Your task to perform on an android device: turn off smart reply in the gmail app Image 0: 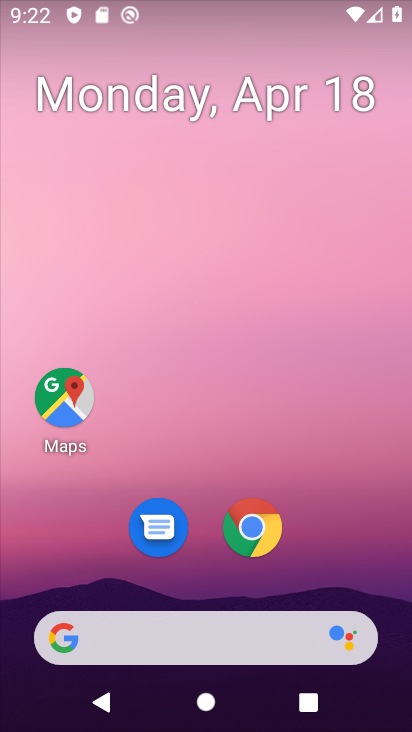
Step 0: drag from (331, 477) to (334, 13)
Your task to perform on an android device: turn off smart reply in the gmail app Image 1: 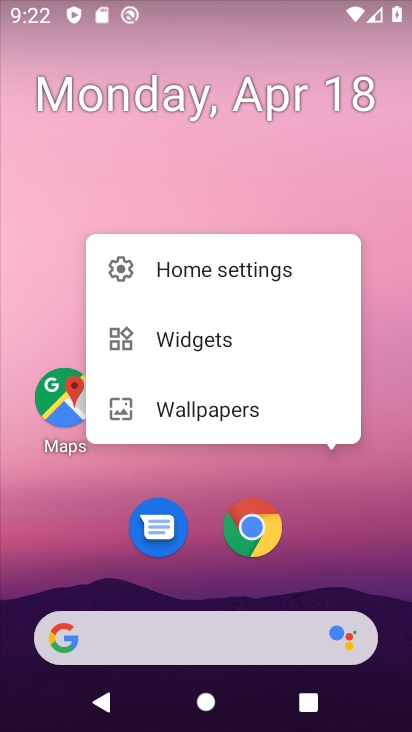
Step 1: click (336, 540)
Your task to perform on an android device: turn off smart reply in the gmail app Image 2: 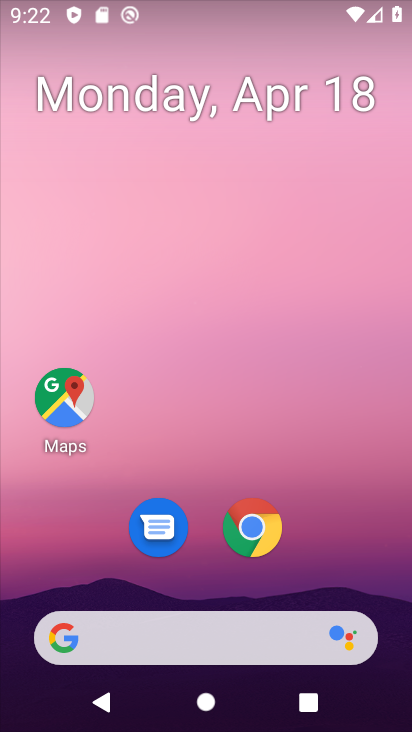
Step 2: click (336, 540)
Your task to perform on an android device: turn off smart reply in the gmail app Image 3: 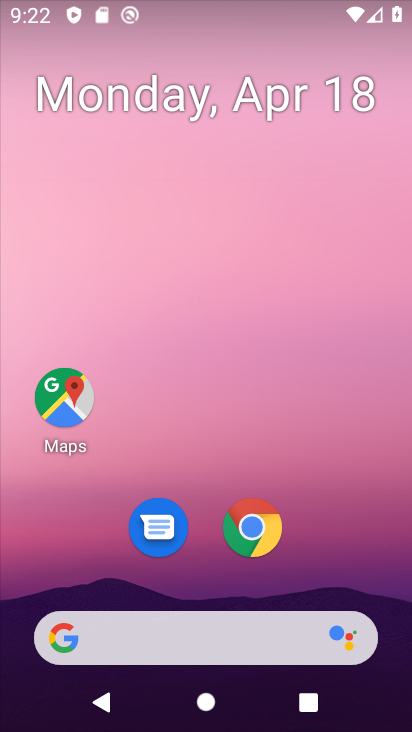
Step 3: drag from (335, 360) to (326, 134)
Your task to perform on an android device: turn off smart reply in the gmail app Image 4: 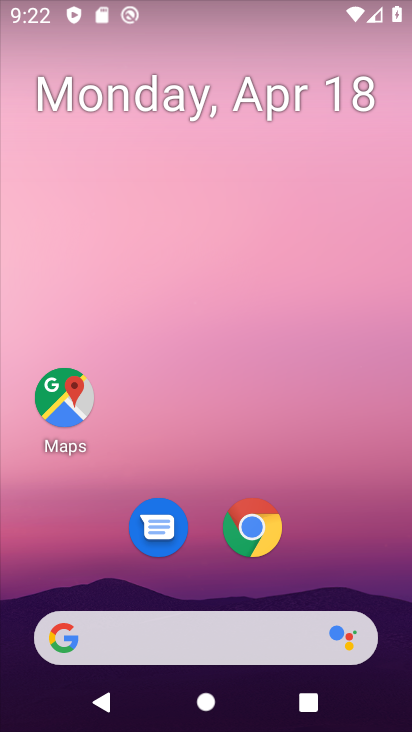
Step 4: drag from (312, 543) to (271, 30)
Your task to perform on an android device: turn off smart reply in the gmail app Image 5: 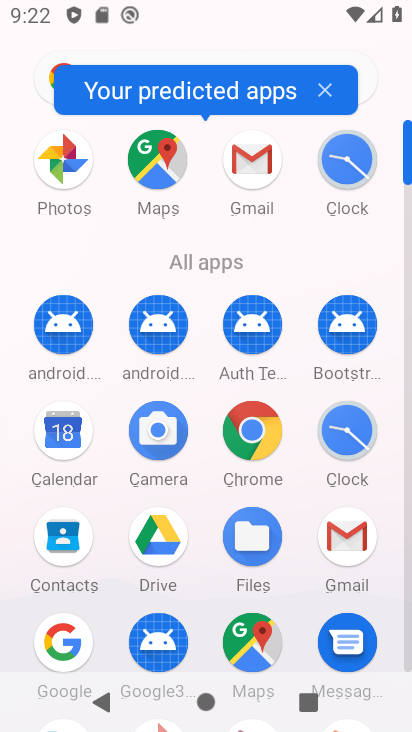
Step 5: click (255, 178)
Your task to perform on an android device: turn off smart reply in the gmail app Image 6: 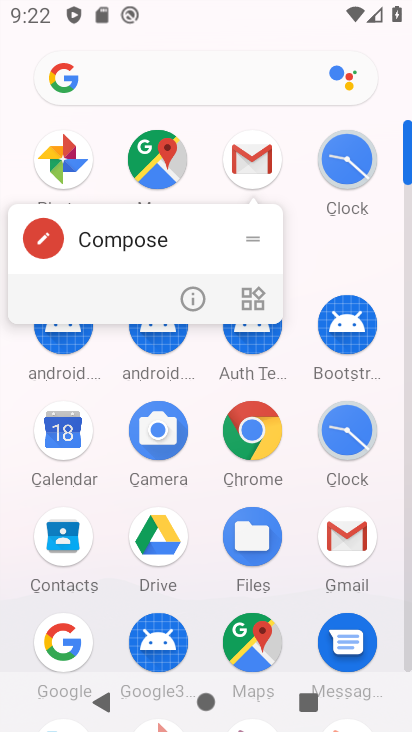
Step 6: click (255, 178)
Your task to perform on an android device: turn off smart reply in the gmail app Image 7: 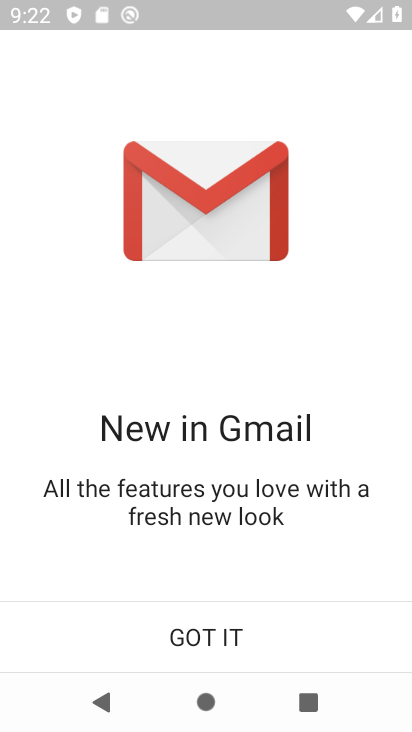
Step 7: click (209, 636)
Your task to perform on an android device: turn off smart reply in the gmail app Image 8: 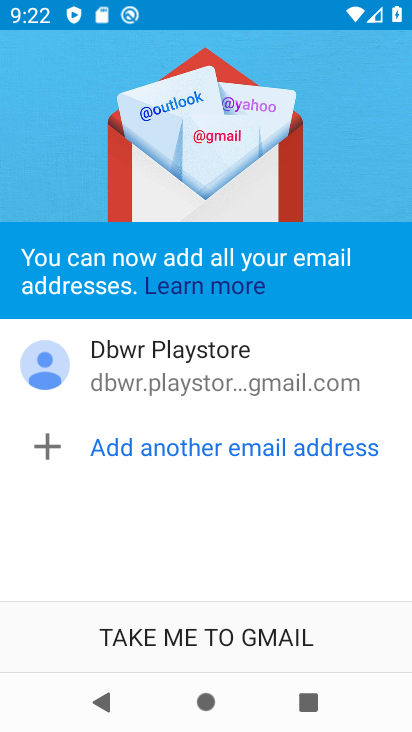
Step 8: click (209, 636)
Your task to perform on an android device: turn off smart reply in the gmail app Image 9: 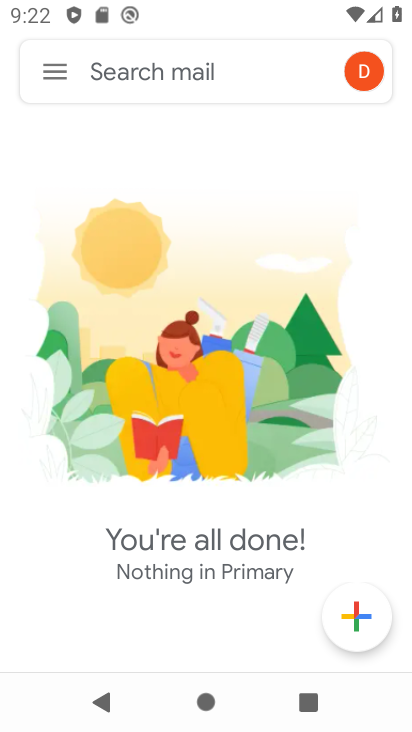
Step 9: click (55, 74)
Your task to perform on an android device: turn off smart reply in the gmail app Image 10: 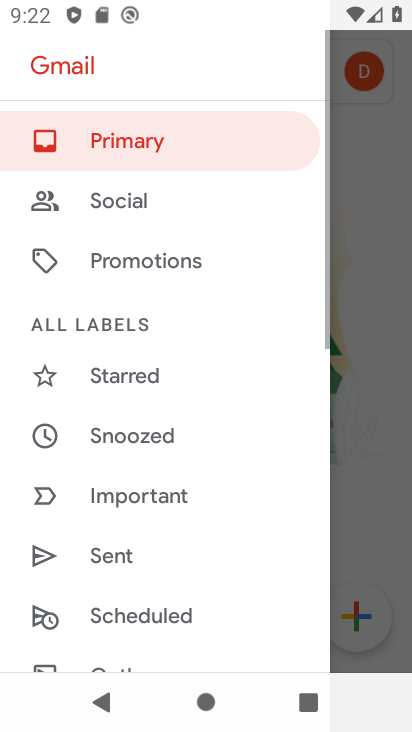
Step 10: drag from (139, 533) to (164, 256)
Your task to perform on an android device: turn off smart reply in the gmail app Image 11: 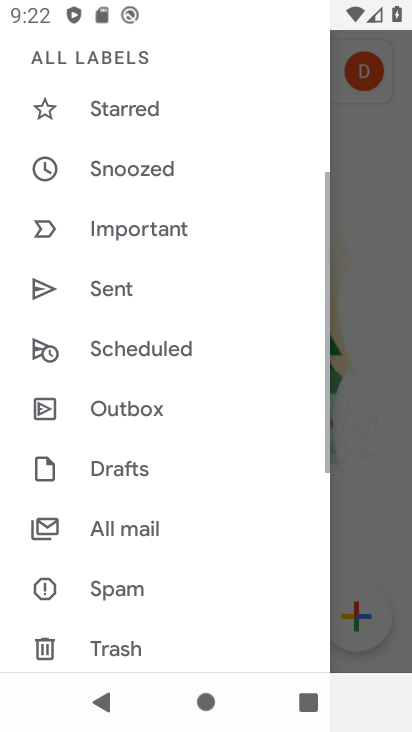
Step 11: drag from (172, 619) to (180, 266)
Your task to perform on an android device: turn off smart reply in the gmail app Image 12: 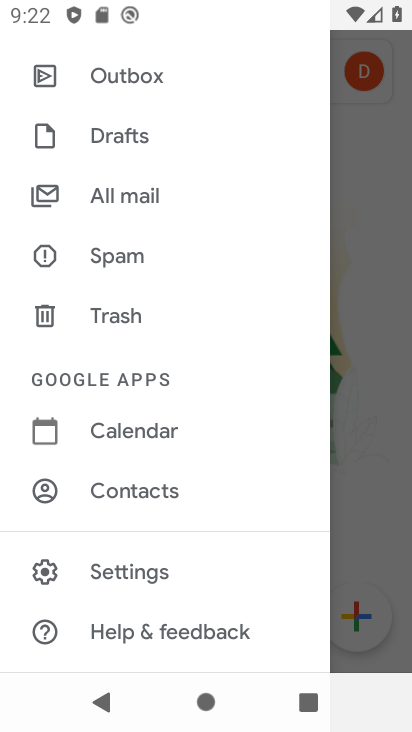
Step 12: drag from (199, 578) to (197, 327)
Your task to perform on an android device: turn off smart reply in the gmail app Image 13: 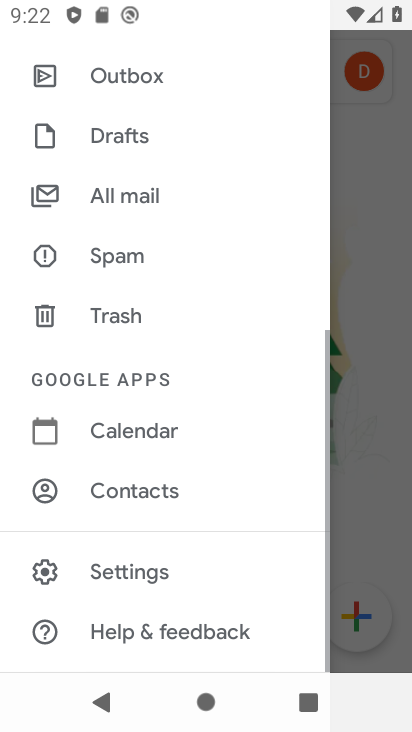
Step 13: click (191, 561)
Your task to perform on an android device: turn off smart reply in the gmail app Image 14: 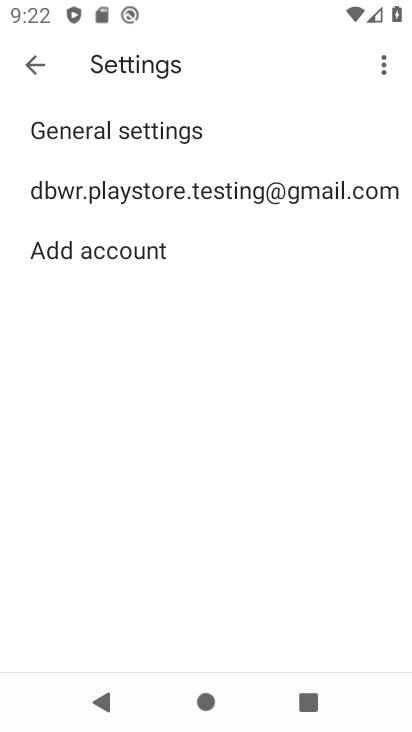
Step 14: click (203, 201)
Your task to perform on an android device: turn off smart reply in the gmail app Image 15: 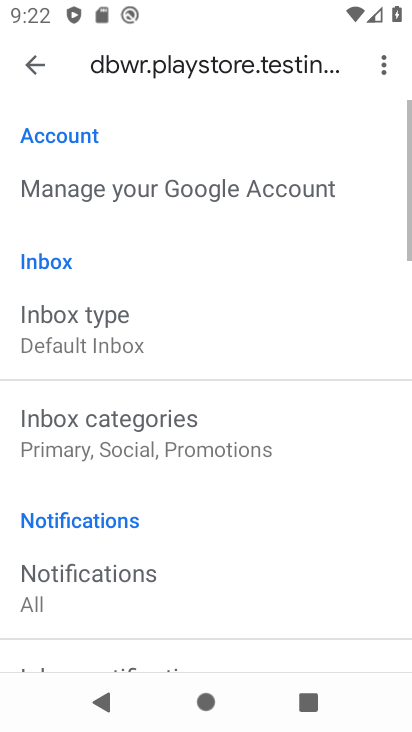
Step 15: drag from (200, 540) to (230, 228)
Your task to perform on an android device: turn off smart reply in the gmail app Image 16: 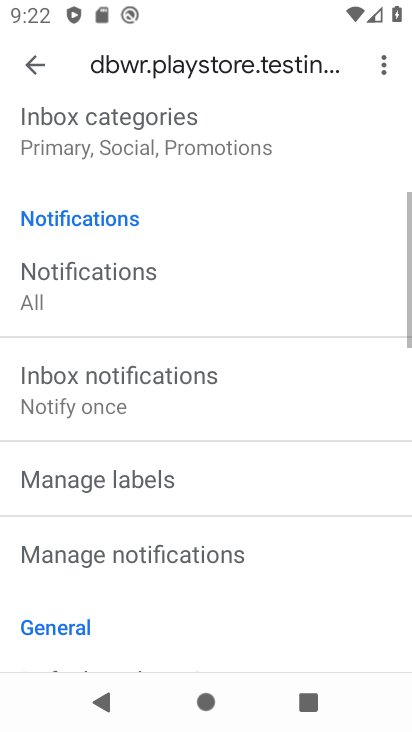
Step 16: drag from (242, 492) to (255, 276)
Your task to perform on an android device: turn off smart reply in the gmail app Image 17: 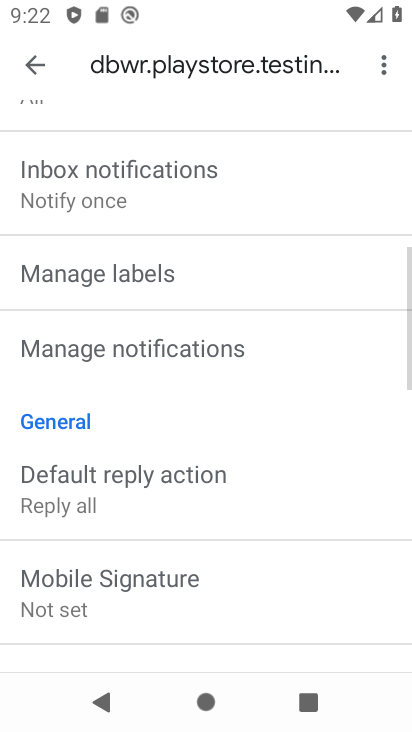
Step 17: drag from (223, 557) to (241, 293)
Your task to perform on an android device: turn off smart reply in the gmail app Image 18: 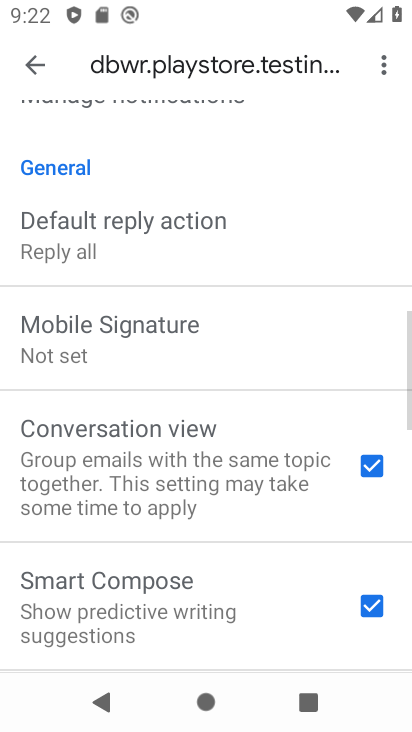
Step 18: drag from (231, 579) to (249, 390)
Your task to perform on an android device: turn off smart reply in the gmail app Image 19: 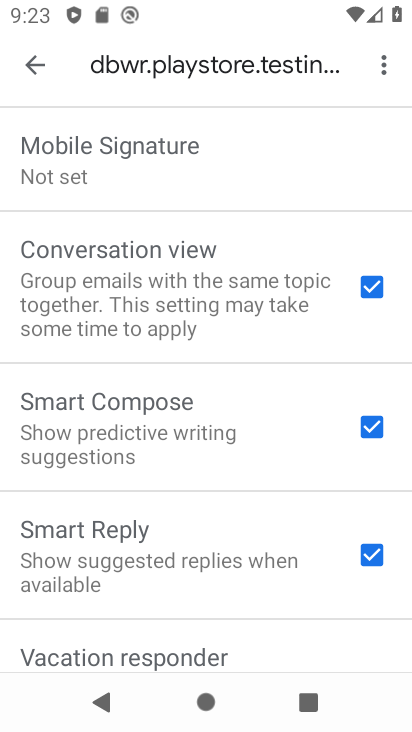
Step 19: click (359, 427)
Your task to perform on an android device: turn off smart reply in the gmail app Image 20: 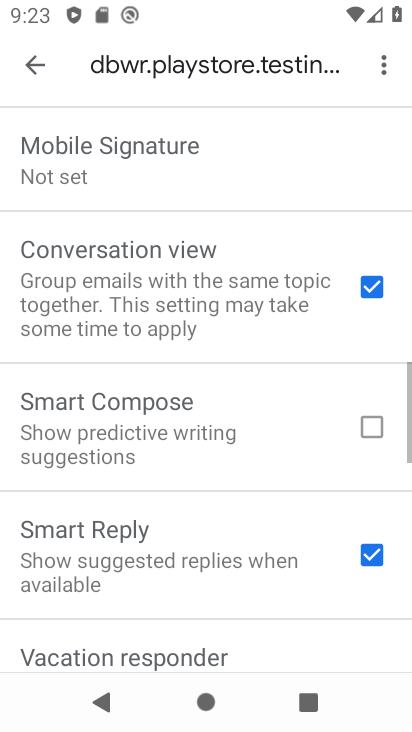
Step 20: task complete